Your task to perform on an android device: What's a goodrestaurant in Austin? Image 0: 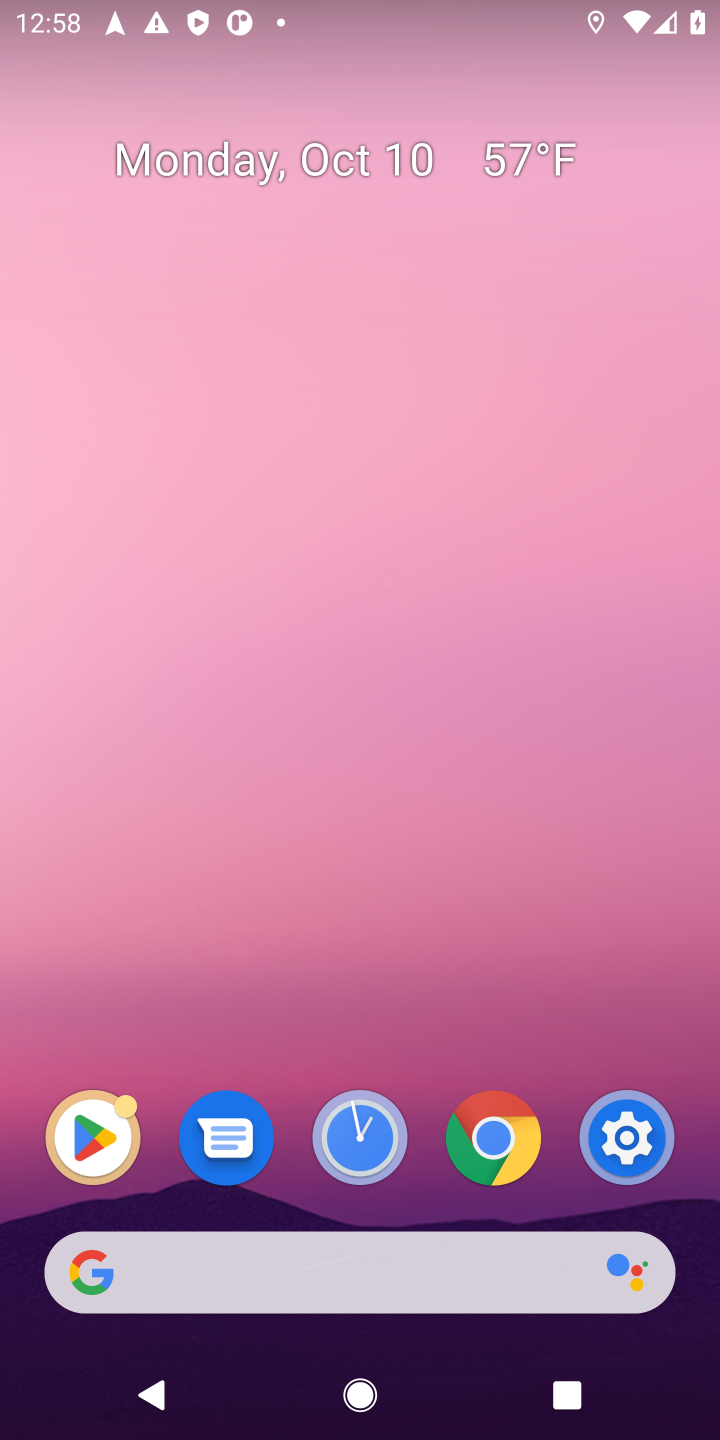
Step 0: click (362, 1274)
Your task to perform on an android device: What's a goodrestaurant in Austin? Image 1: 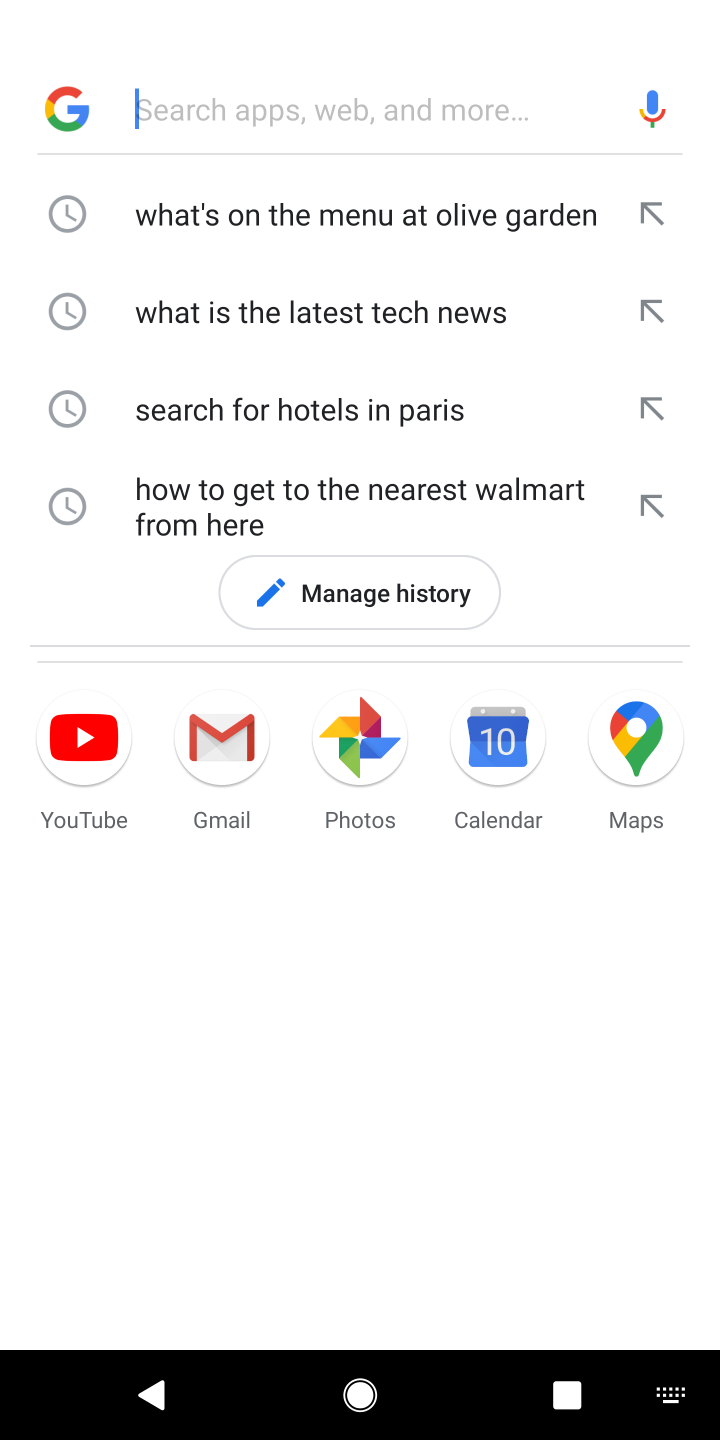
Step 1: type "What's a goodrestaurant in Austin?"
Your task to perform on an android device: What's a goodrestaurant in Austin? Image 2: 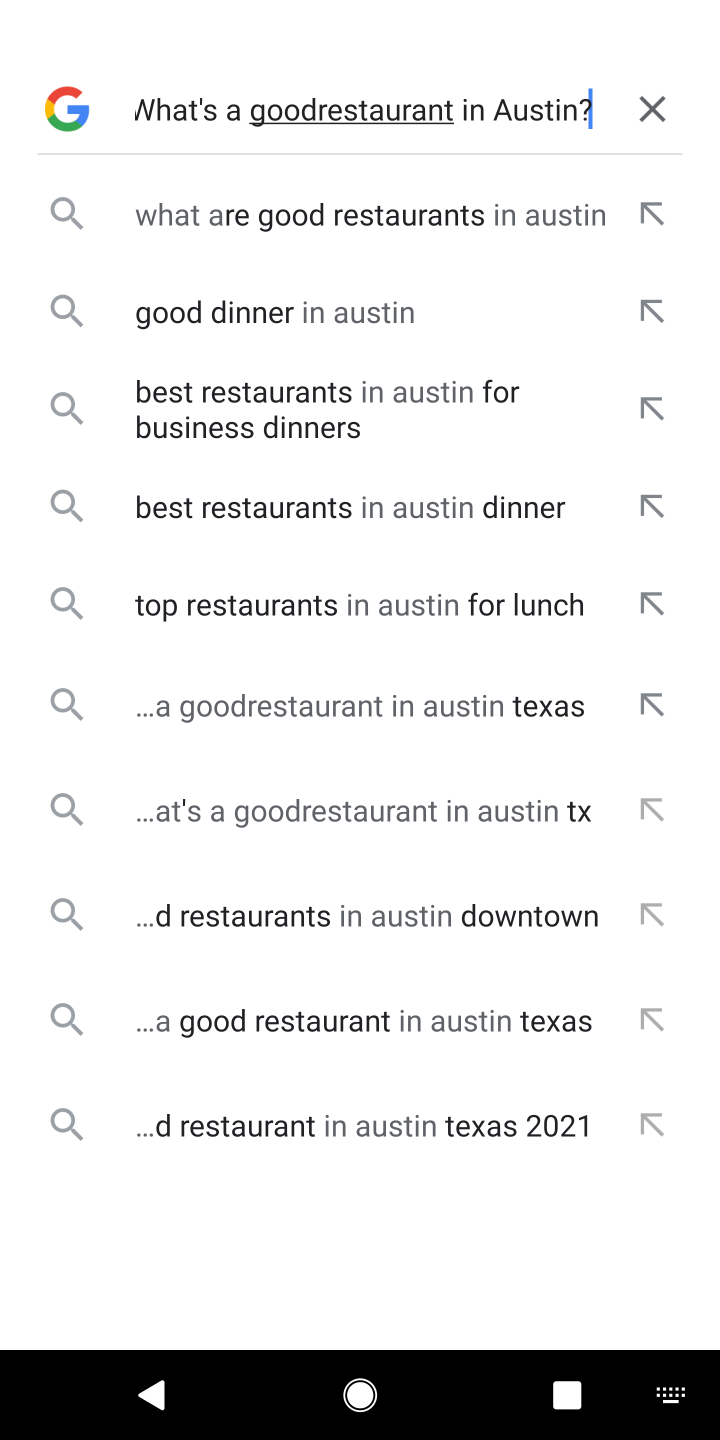
Step 2: click (347, 212)
Your task to perform on an android device: What's a goodrestaurant in Austin? Image 3: 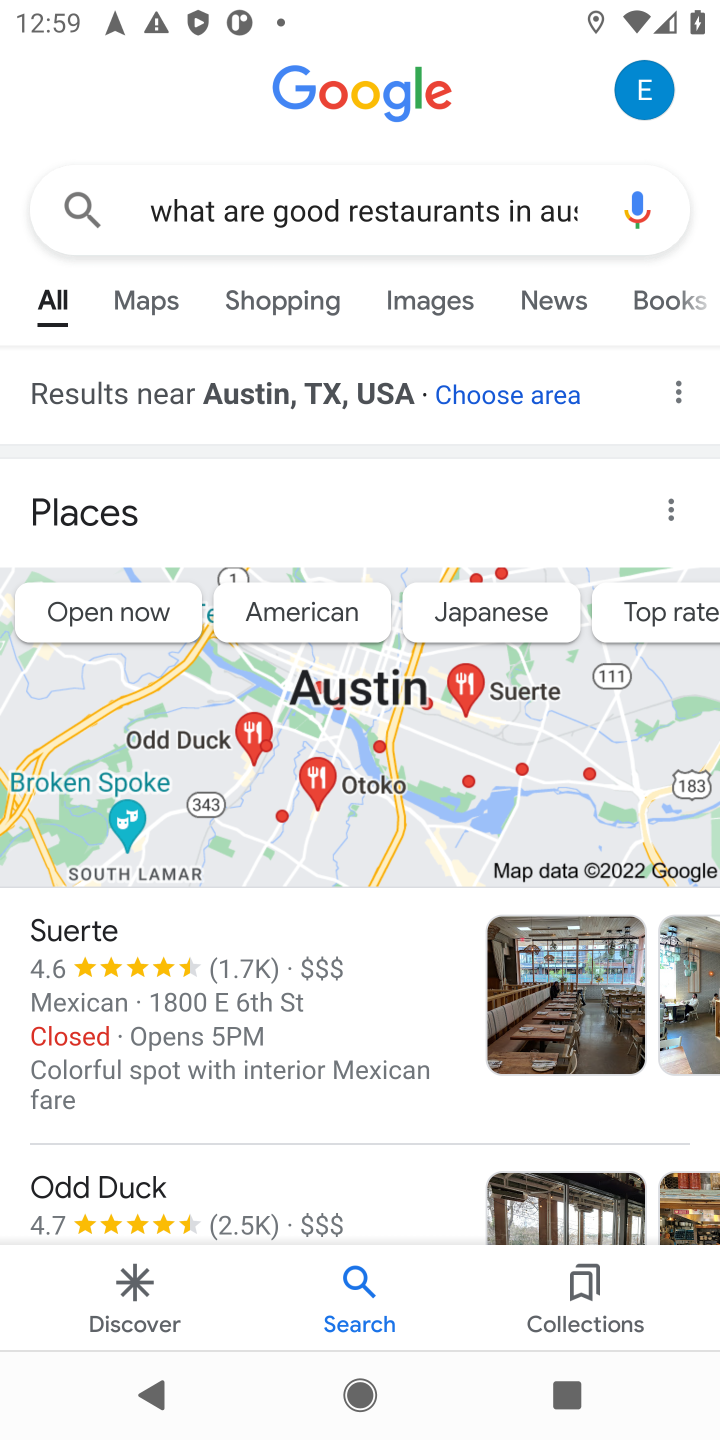
Step 3: task complete